Your task to perform on an android device: Open notification settings Image 0: 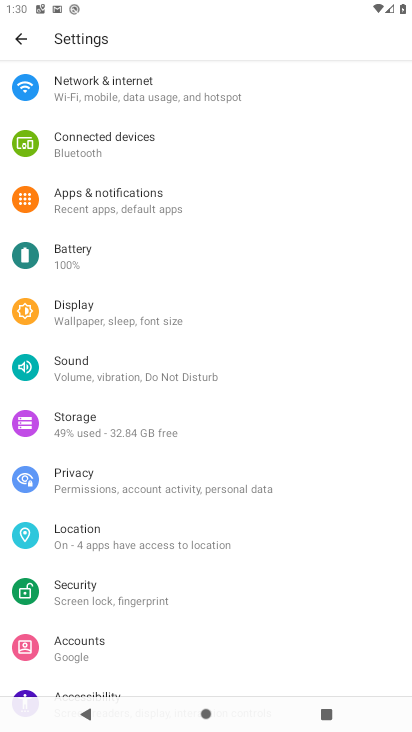
Step 0: click (106, 192)
Your task to perform on an android device: Open notification settings Image 1: 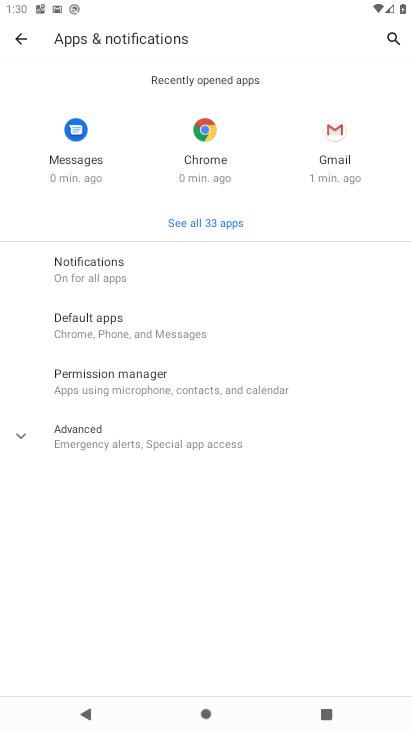
Step 1: click (101, 261)
Your task to perform on an android device: Open notification settings Image 2: 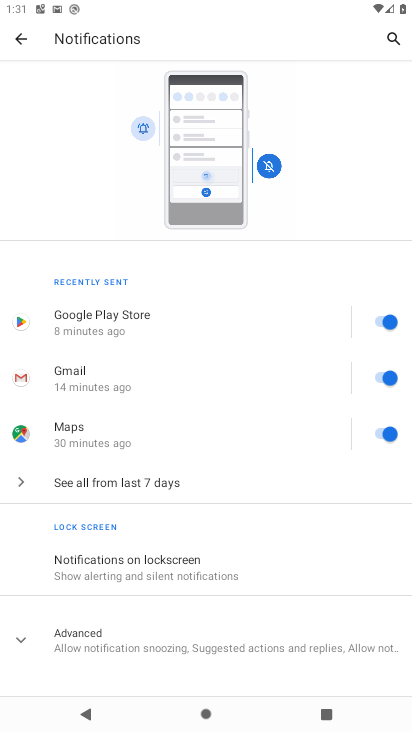
Step 2: click (110, 642)
Your task to perform on an android device: Open notification settings Image 3: 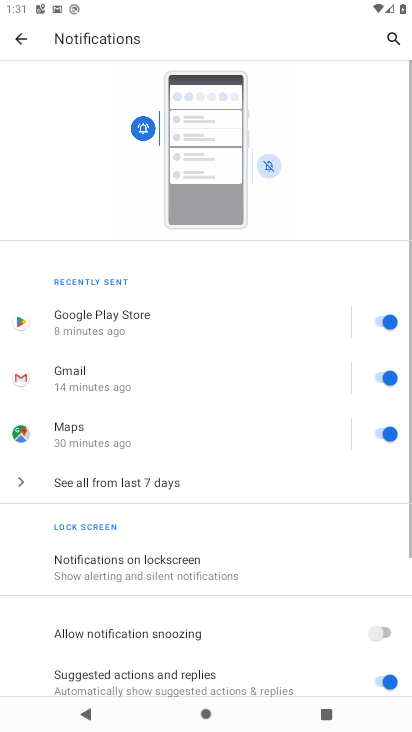
Step 3: task complete